Your task to perform on an android device: Open accessibility settings Image 0: 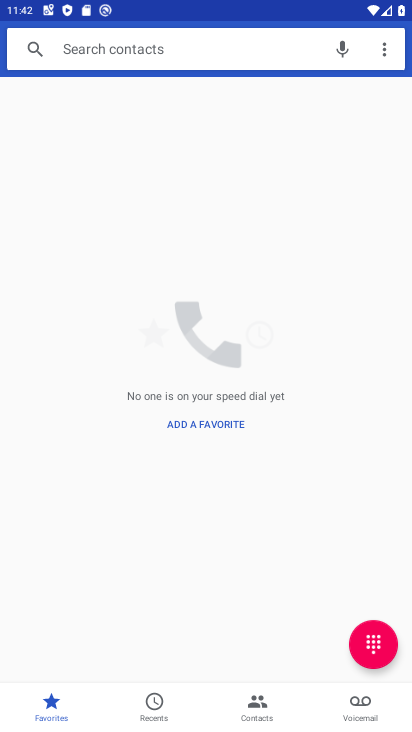
Step 0: press home button
Your task to perform on an android device: Open accessibility settings Image 1: 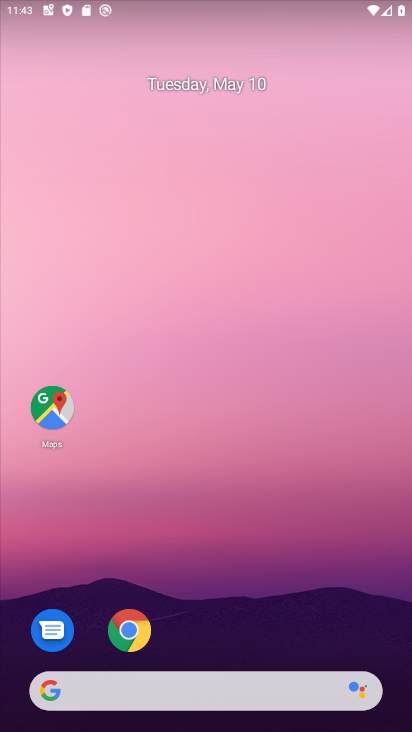
Step 1: drag from (248, 652) to (300, 115)
Your task to perform on an android device: Open accessibility settings Image 2: 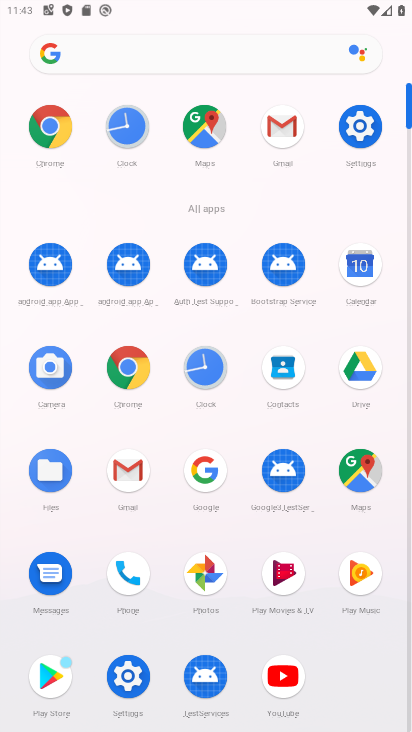
Step 2: click (364, 138)
Your task to perform on an android device: Open accessibility settings Image 3: 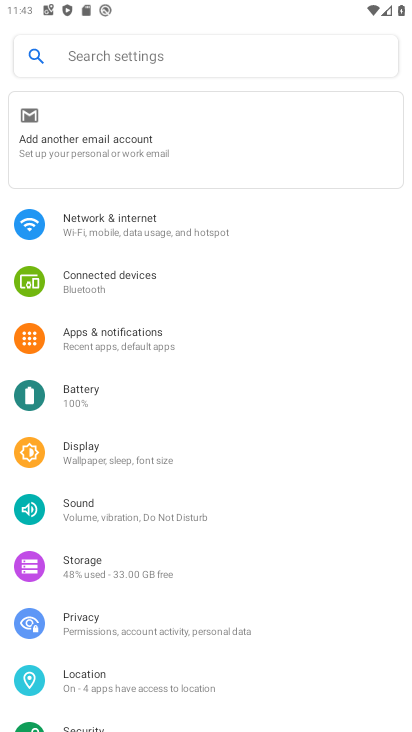
Step 3: drag from (246, 616) to (293, 141)
Your task to perform on an android device: Open accessibility settings Image 4: 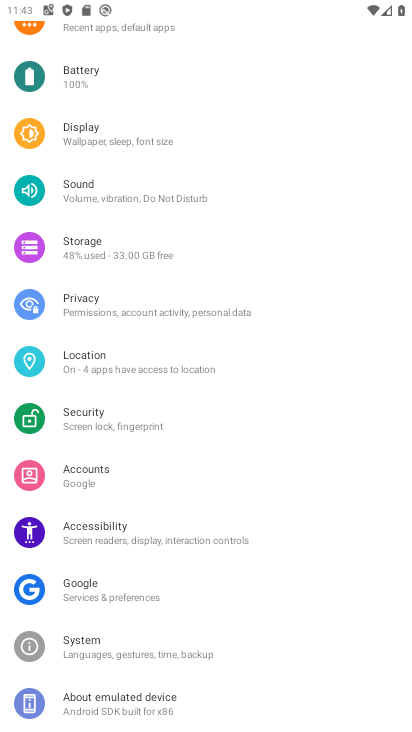
Step 4: click (171, 535)
Your task to perform on an android device: Open accessibility settings Image 5: 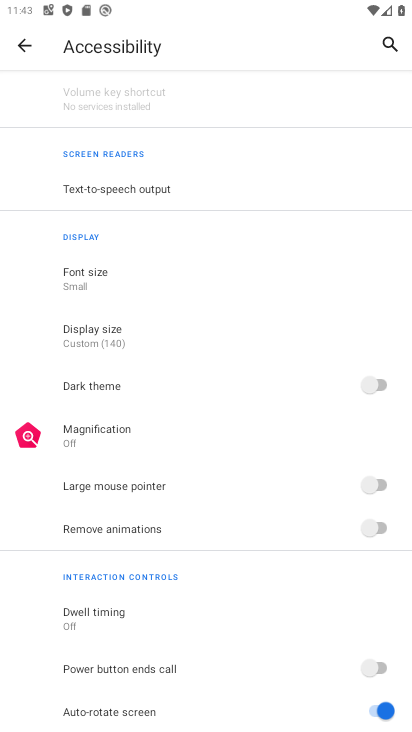
Step 5: task complete